Your task to perform on an android device: open app "Google Drive" (install if not already installed) Image 0: 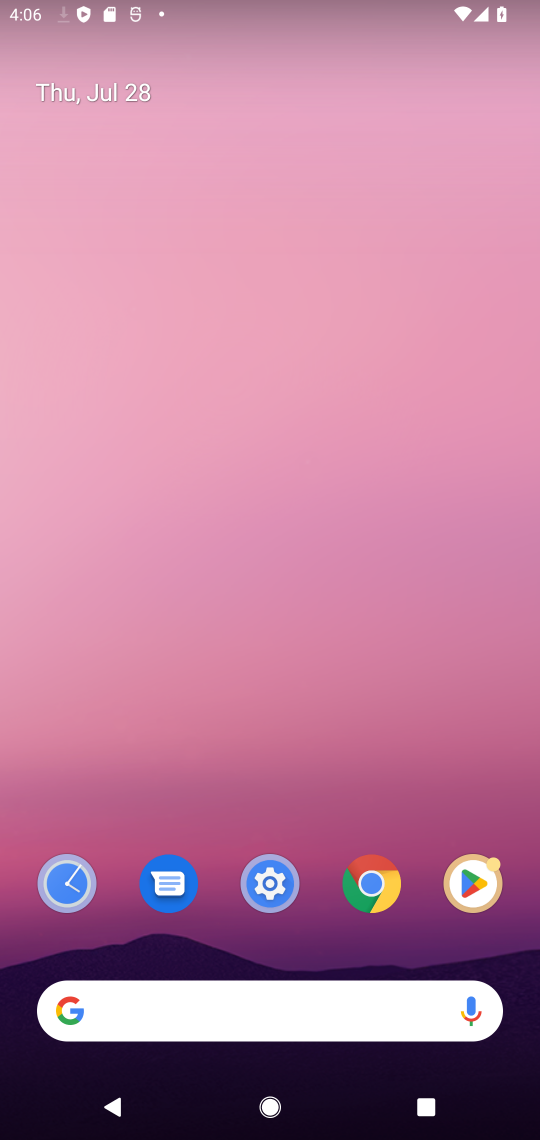
Step 0: click (481, 885)
Your task to perform on an android device: open app "Google Drive" (install if not already installed) Image 1: 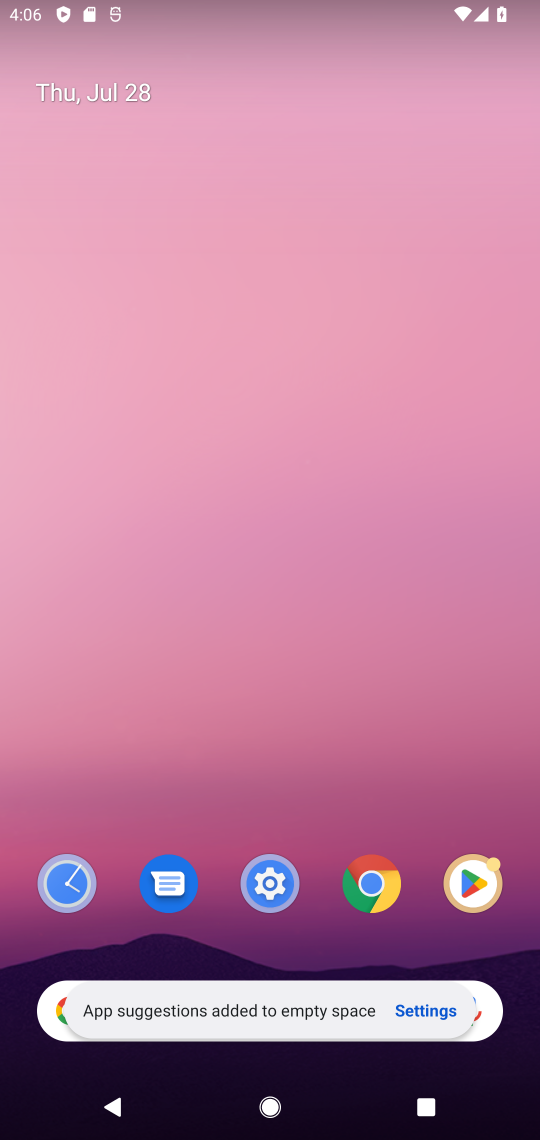
Step 1: click (471, 881)
Your task to perform on an android device: open app "Google Drive" (install if not already installed) Image 2: 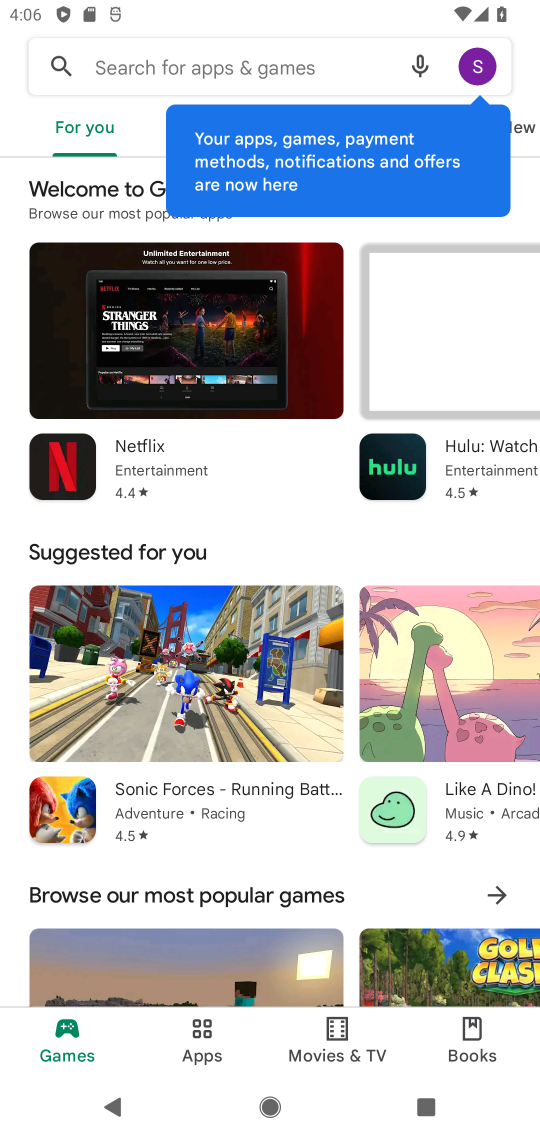
Step 2: click (137, 73)
Your task to perform on an android device: open app "Google Drive" (install if not already installed) Image 3: 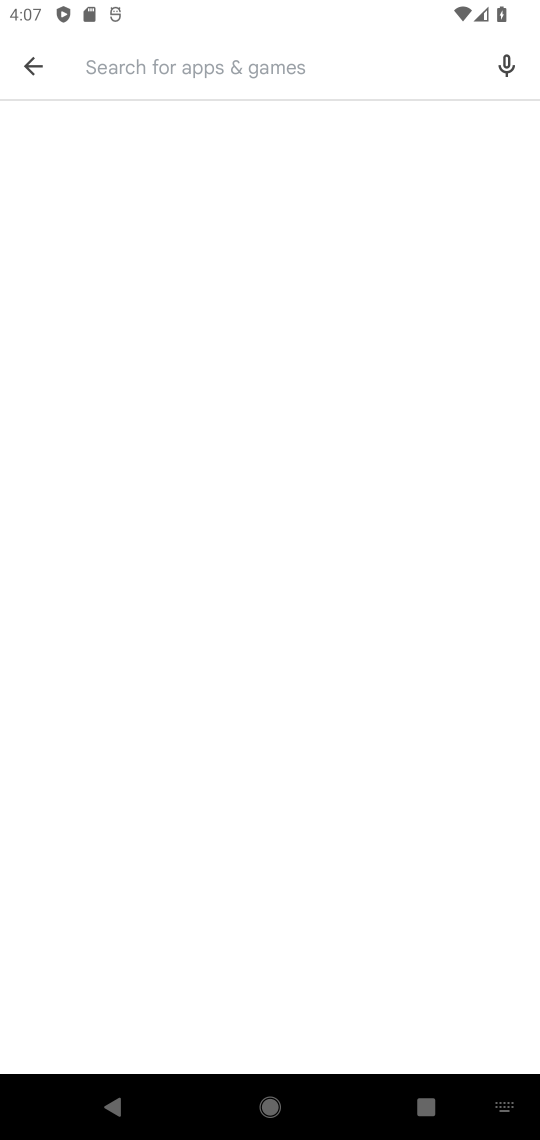
Step 3: type "Google Drive"
Your task to perform on an android device: open app "Google Drive" (install if not already installed) Image 4: 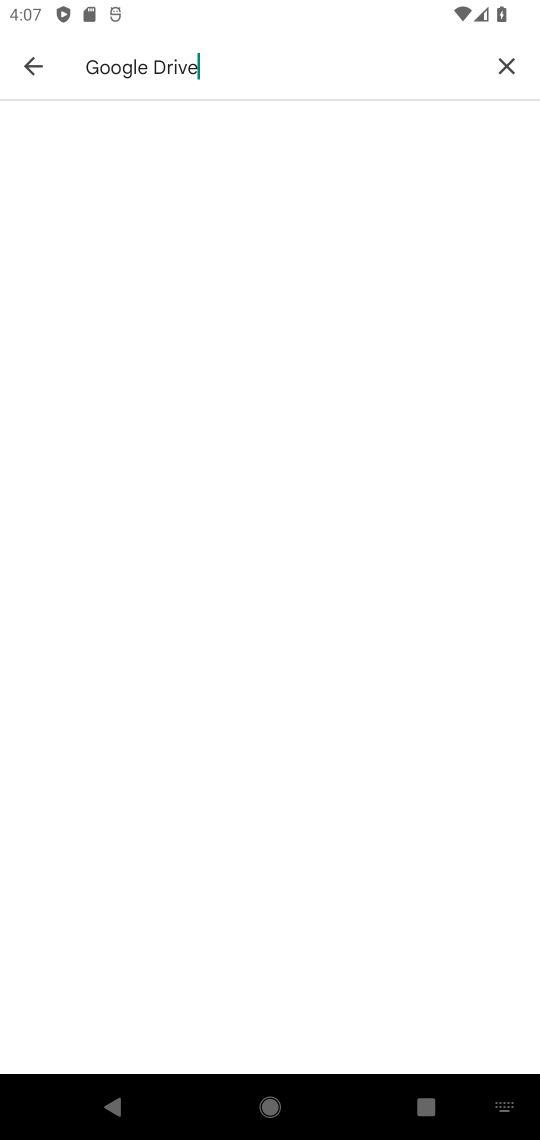
Step 4: type ""
Your task to perform on an android device: open app "Google Drive" (install if not already installed) Image 5: 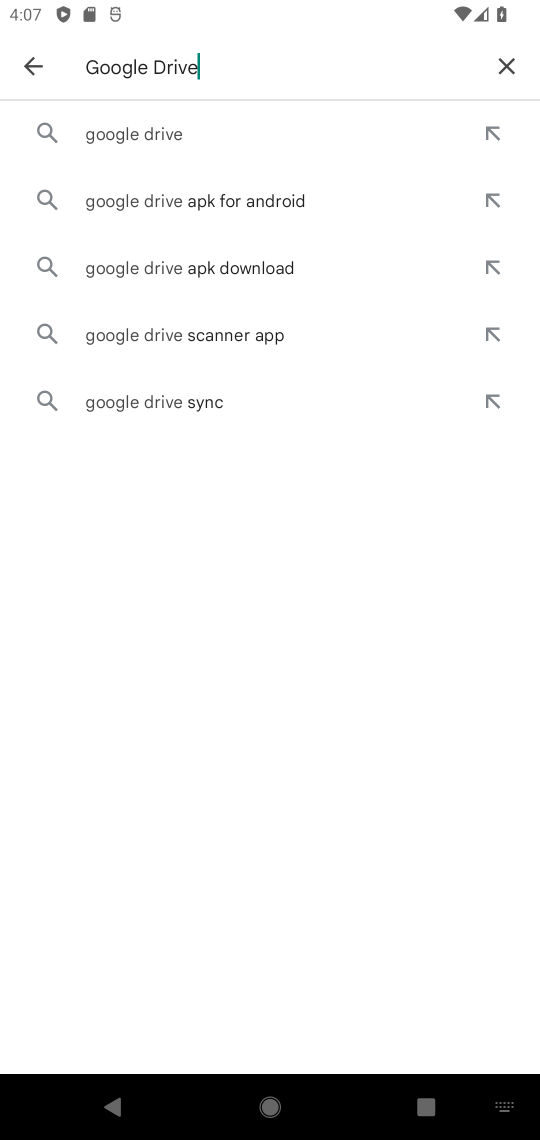
Step 5: click (146, 129)
Your task to perform on an android device: open app "Google Drive" (install if not already installed) Image 6: 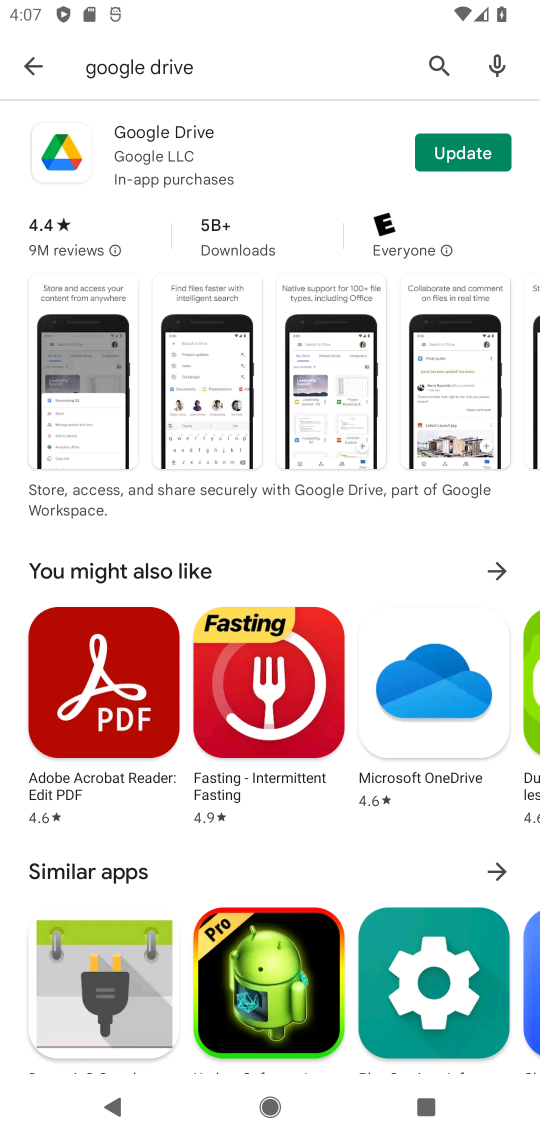
Step 6: click (455, 150)
Your task to perform on an android device: open app "Google Drive" (install if not already installed) Image 7: 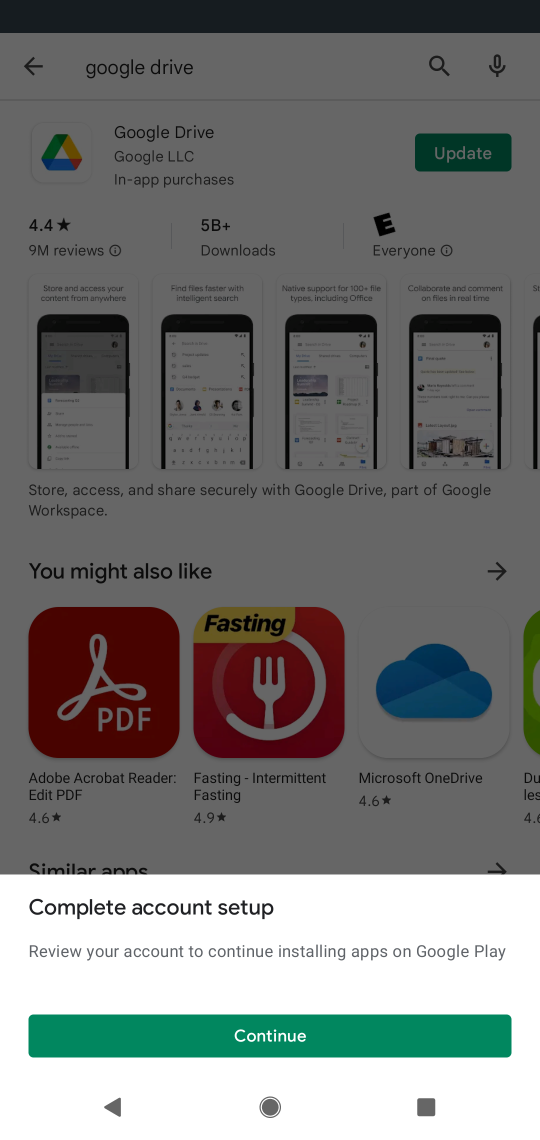
Step 7: click (273, 1033)
Your task to perform on an android device: open app "Google Drive" (install if not already installed) Image 8: 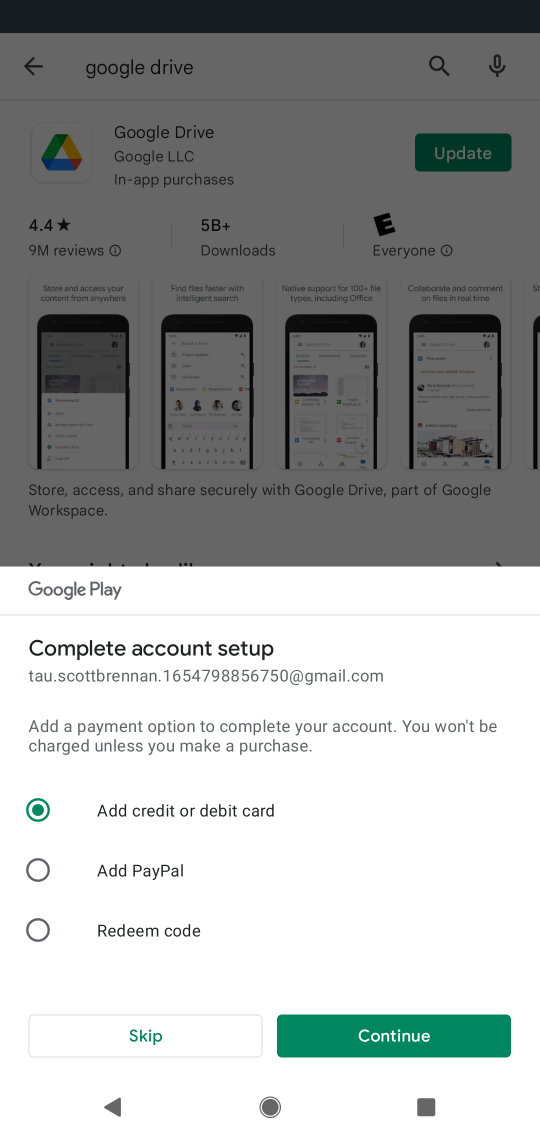
Step 8: click (134, 1034)
Your task to perform on an android device: open app "Google Drive" (install if not already installed) Image 9: 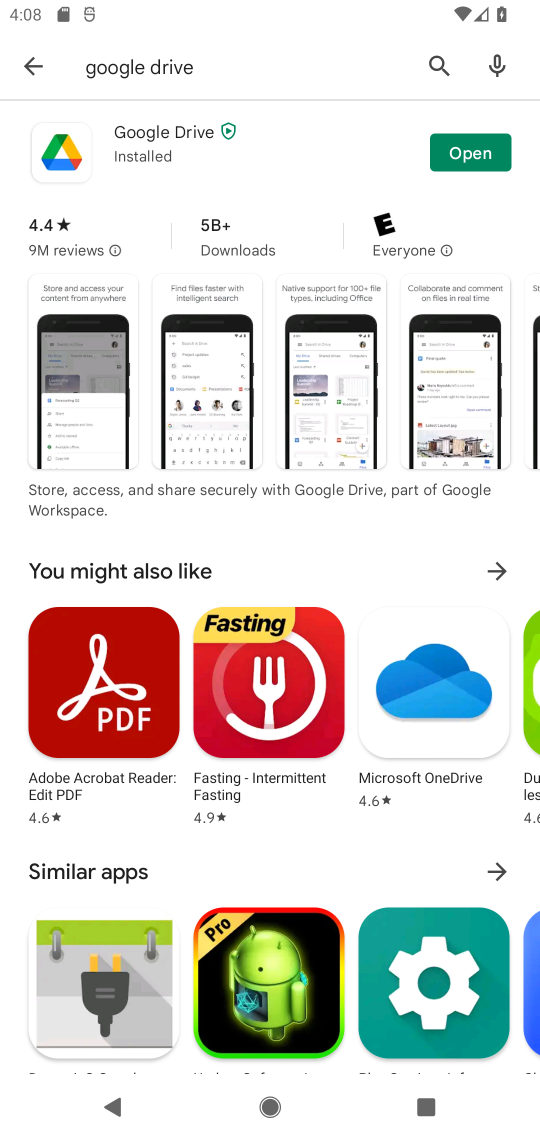
Step 9: task complete